Your task to perform on an android device: Open the stopwatch Image 0: 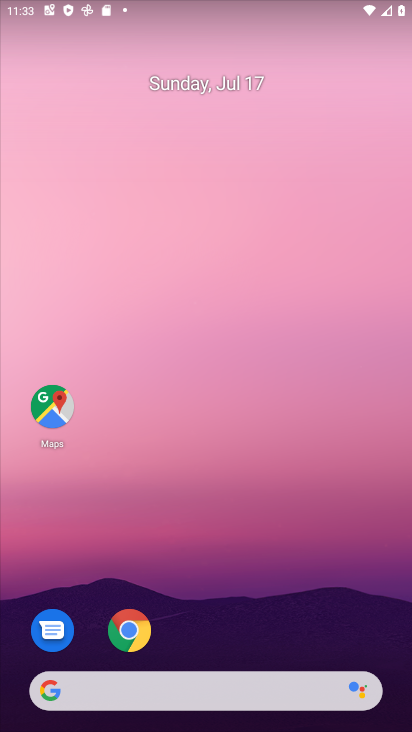
Step 0: drag from (217, 621) to (234, 170)
Your task to perform on an android device: Open the stopwatch Image 1: 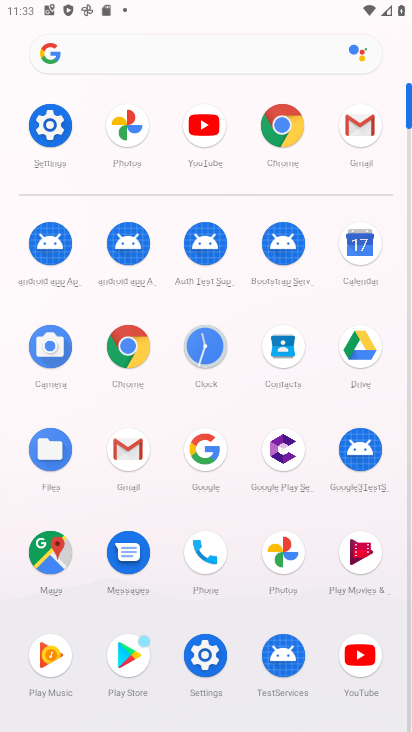
Step 1: click (212, 337)
Your task to perform on an android device: Open the stopwatch Image 2: 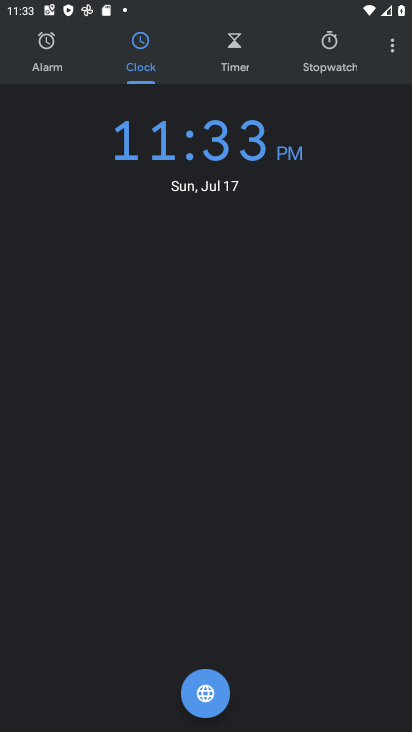
Step 2: click (242, 54)
Your task to perform on an android device: Open the stopwatch Image 3: 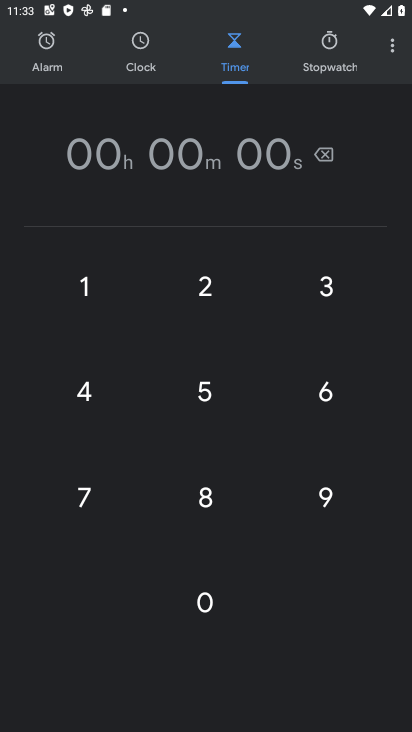
Step 3: task complete